Your task to perform on an android device: Go to location settings Image 0: 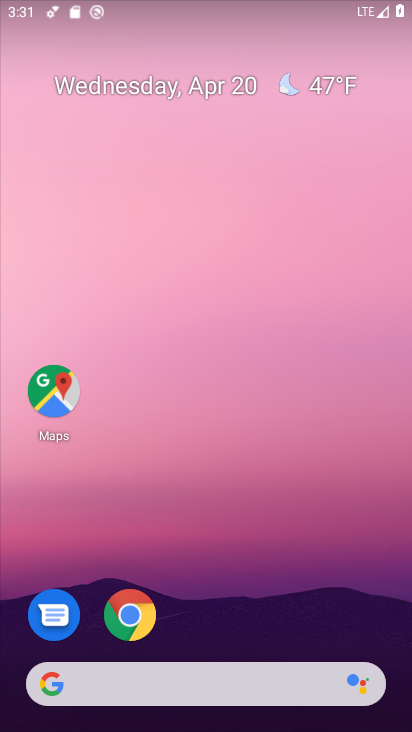
Step 0: drag from (222, 618) to (229, 263)
Your task to perform on an android device: Go to location settings Image 1: 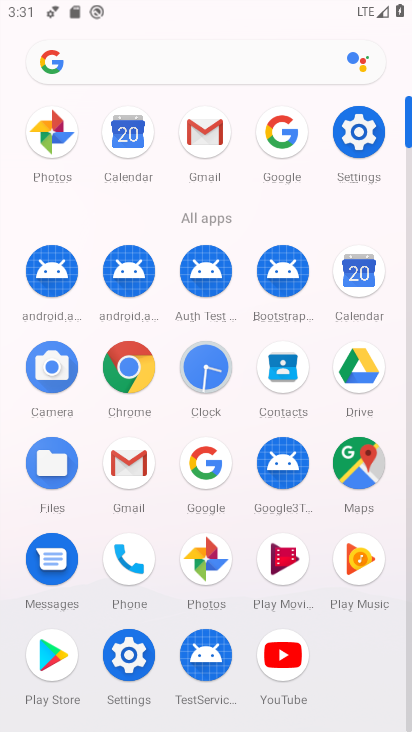
Step 1: click (340, 131)
Your task to perform on an android device: Go to location settings Image 2: 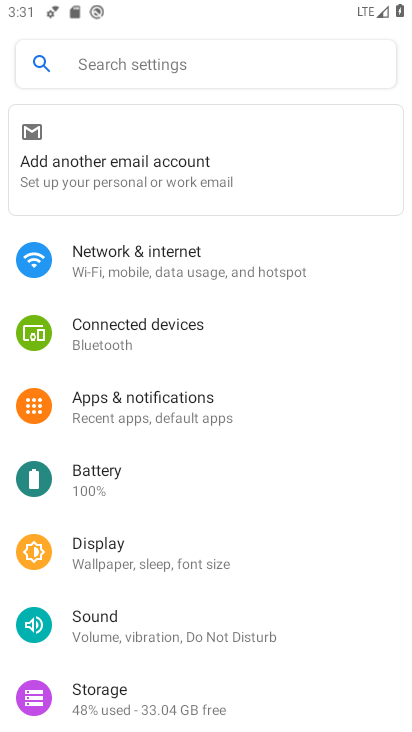
Step 2: drag from (204, 597) to (246, 279)
Your task to perform on an android device: Go to location settings Image 3: 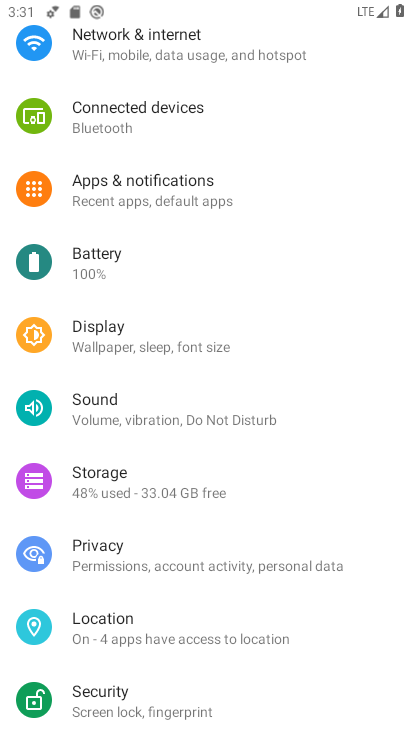
Step 3: click (155, 623)
Your task to perform on an android device: Go to location settings Image 4: 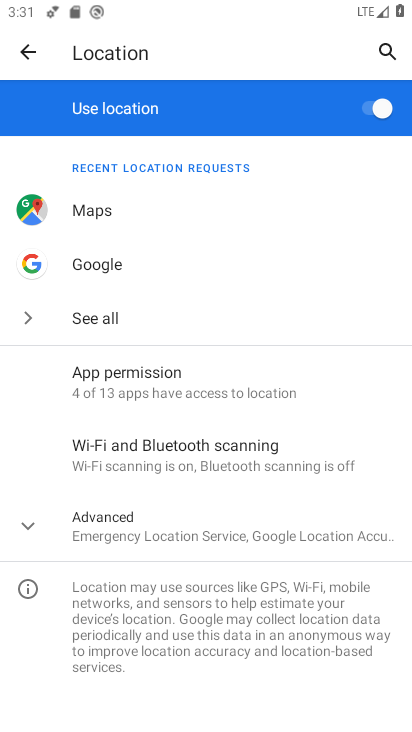
Step 4: task complete